Your task to perform on an android device: Open network settings Image 0: 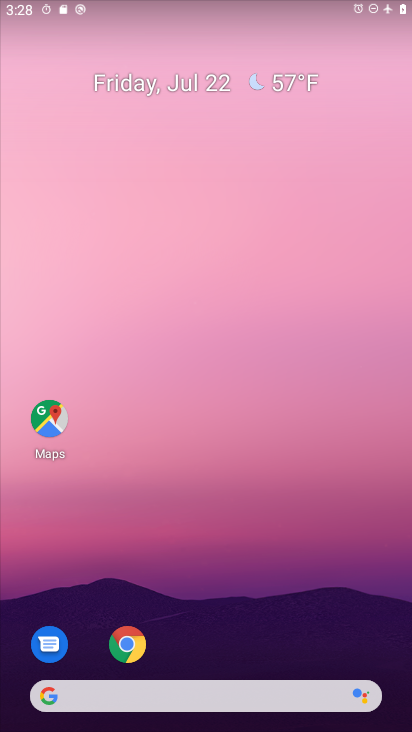
Step 0: drag from (235, 608) to (241, 232)
Your task to perform on an android device: Open network settings Image 1: 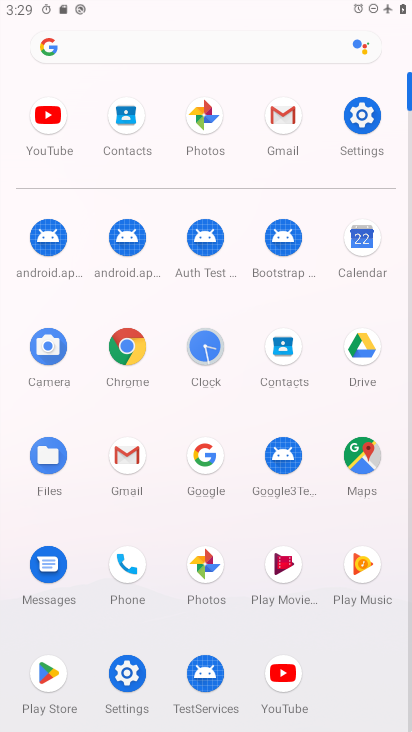
Step 1: click (361, 124)
Your task to perform on an android device: Open network settings Image 2: 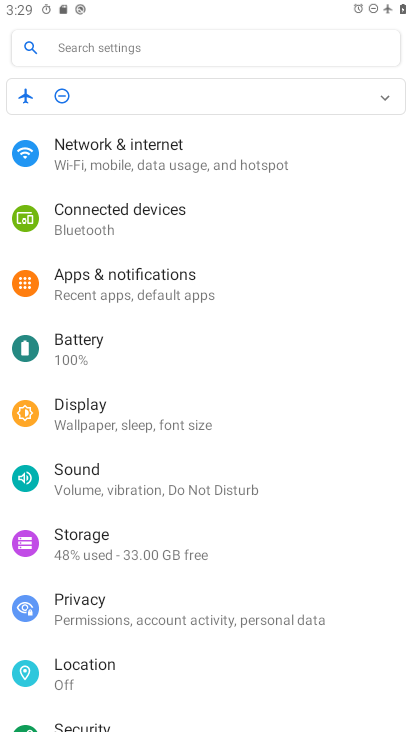
Step 2: click (212, 157)
Your task to perform on an android device: Open network settings Image 3: 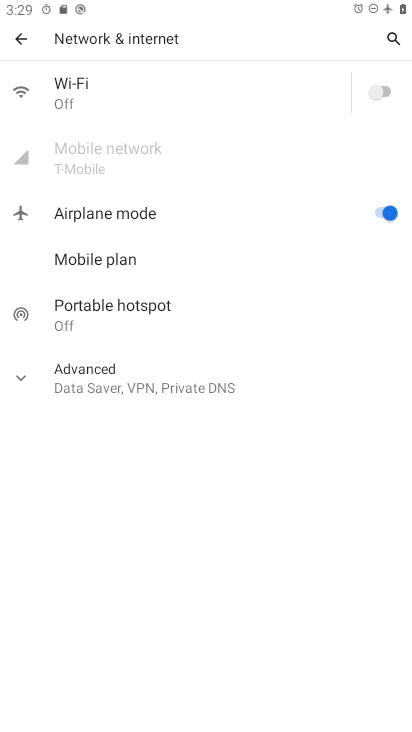
Step 3: task complete